Your task to perform on an android device: Open settings on Google Maps Image 0: 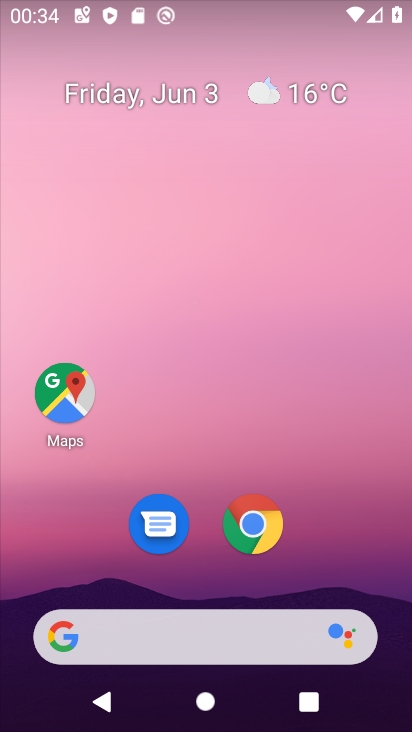
Step 0: click (72, 409)
Your task to perform on an android device: Open settings on Google Maps Image 1: 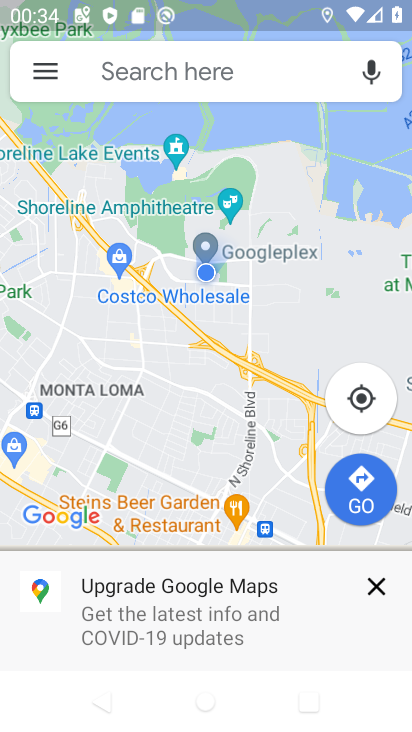
Step 1: click (44, 70)
Your task to perform on an android device: Open settings on Google Maps Image 2: 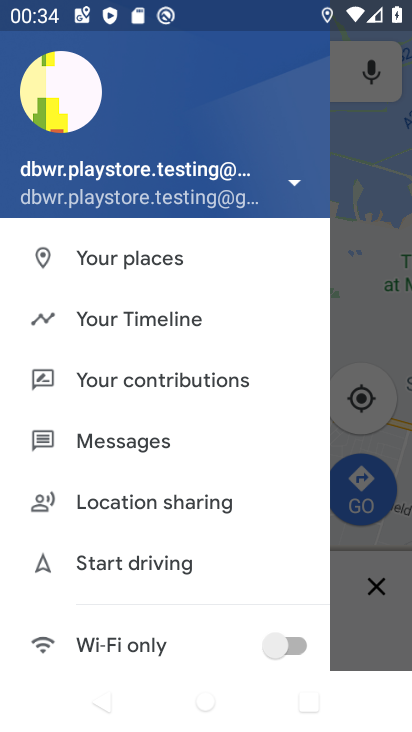
Step 2: drag from (189, 602) to (234, 46)
Your task to perform on an android device: Open settings on Google Maps Image 3: 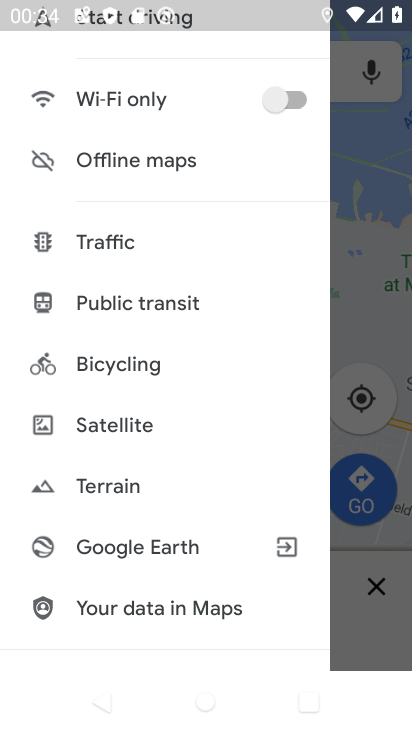
Step 3: drag from (173, 438) to (189, 105)
Your task to perform on an android device: Open settings on Google Maps Image 4: 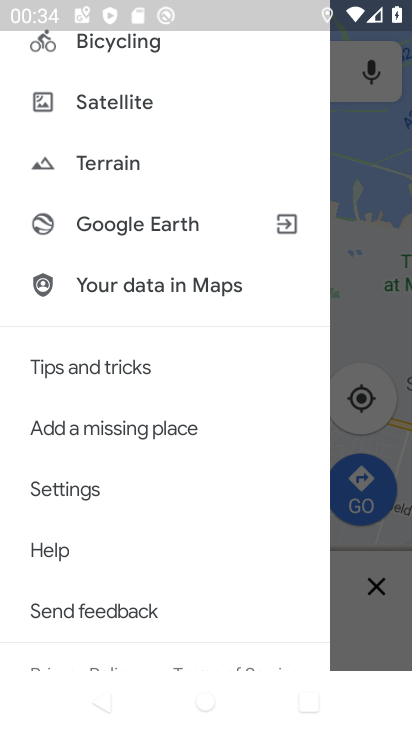
Step 4: click (101, 478)
Your task to perform on an android device: Open settings on Google Maps Image 5: 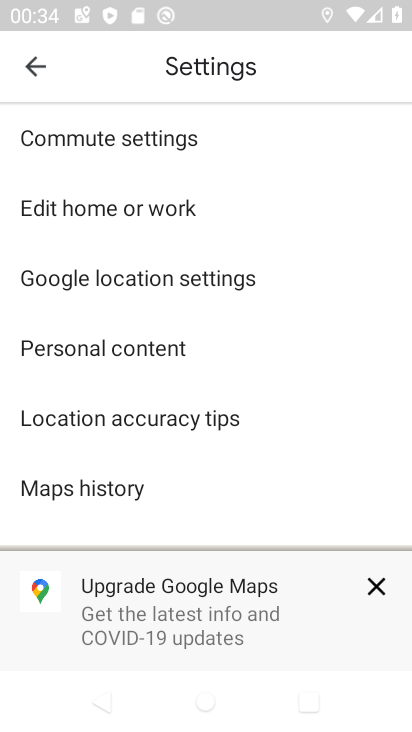
Step 5: task complete